Your task to perform on an android device: open wifi settings Image 0: 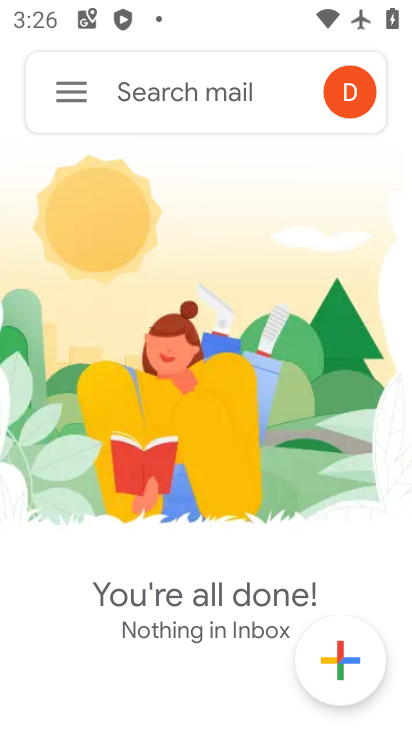
Step 0: press home button
Your task to perform on an android device: open wifi settings Image 1: 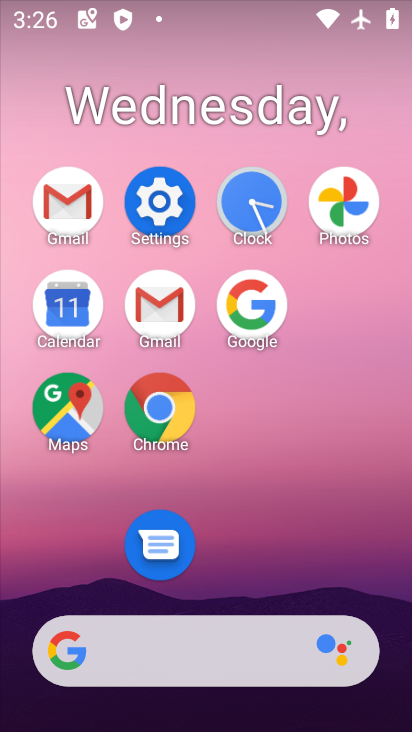
Step 1: click (152, 183)
Your task to perform on an android device: open wifi settings Image 2: 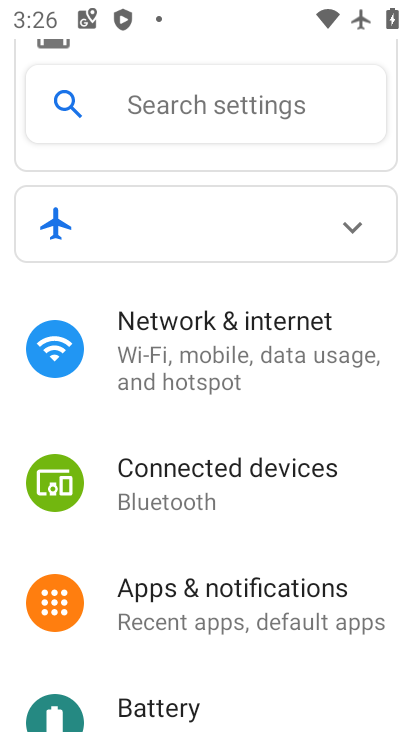
Step 2: click (181, 340)
Your task to perform on an android device: open wifi settings Image 3: 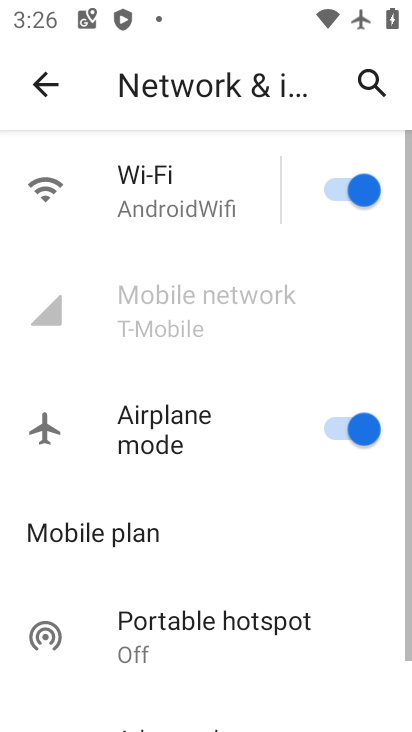
Step 3: click (175, 191)
Your task to perform on an android device: open wifi settings Image 4: 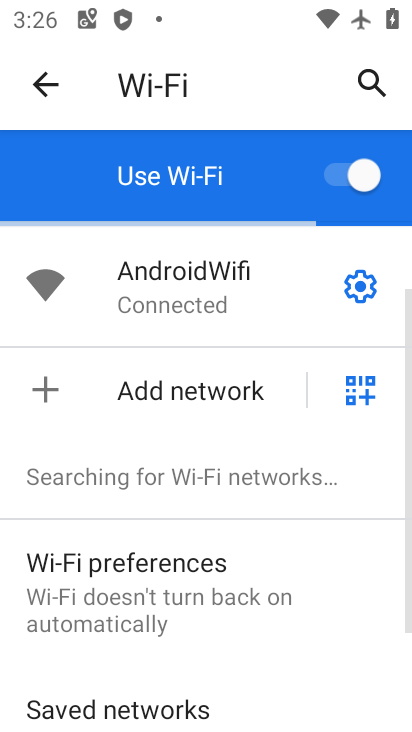
Step 4: click (370, 281)
Your task to perform on an android device: open wifi settings Image 5: 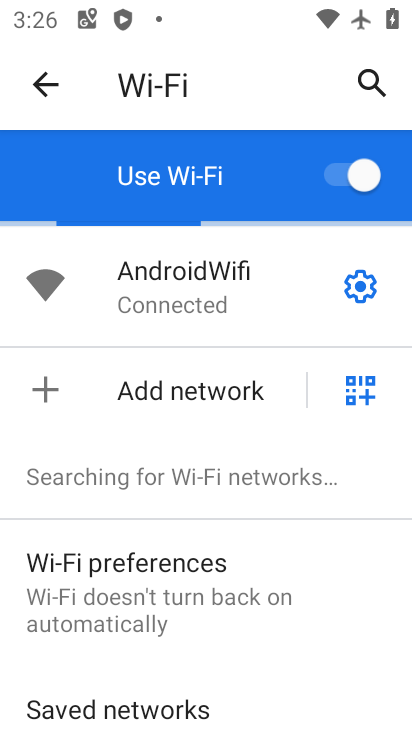
Step 5: click (354, 289)
Your task to perform on an android device: open wifi settings Image 6: 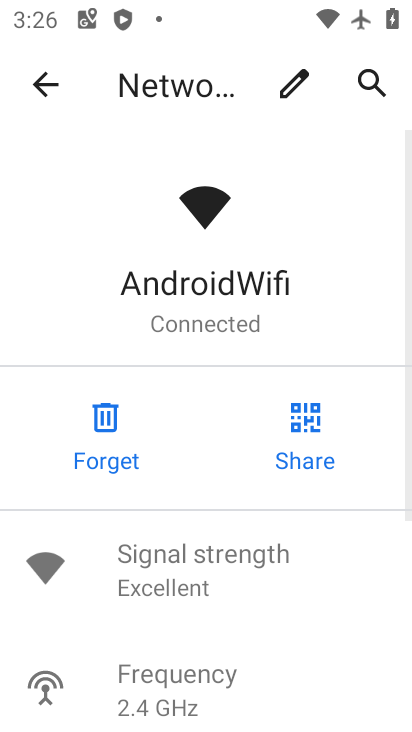
Step 6: task complete